Your task to perform on an android device: see tabs open on other devices in the chrome app Image 0: 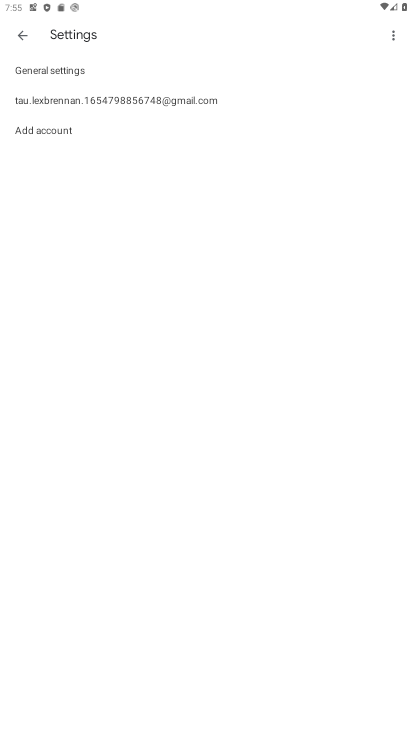
Step 0: press home button
Your task to perform on an android device: see tabs open on other devices in the chrome app Image 1: 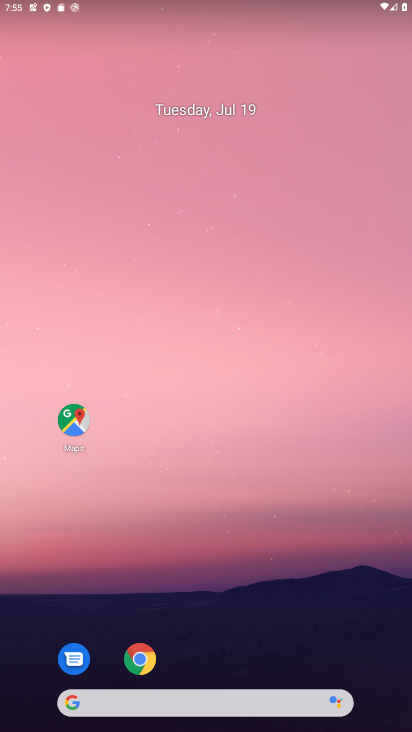
Step 1: click (132, 664)
Your task to perform on an android device: see tabs open on other devices in the chrome app Image 2: 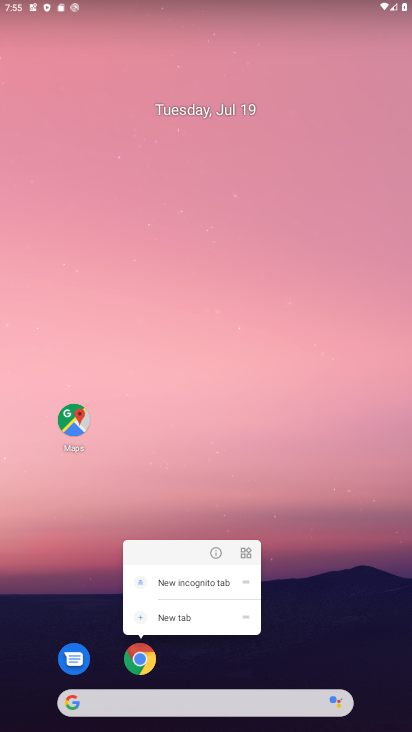
Step 2: click (136, 654)
Your task to perform on an android device: see tabs open on other devices in the chrome app Image 3: 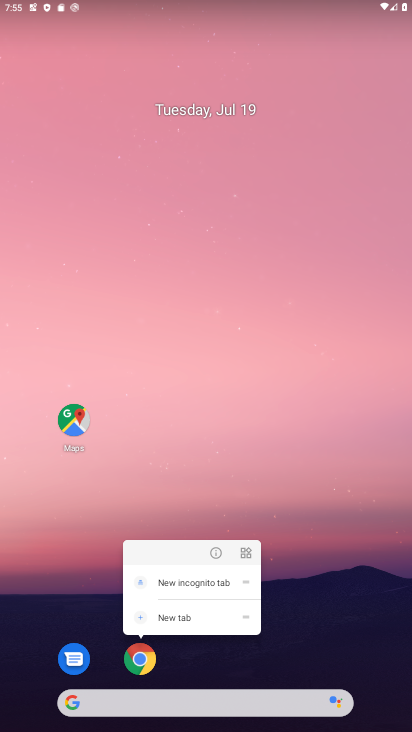
Step 3: click (148, 664)
Your task to perform on an android device: see tabs open on other devices in the chrome app Image 4: 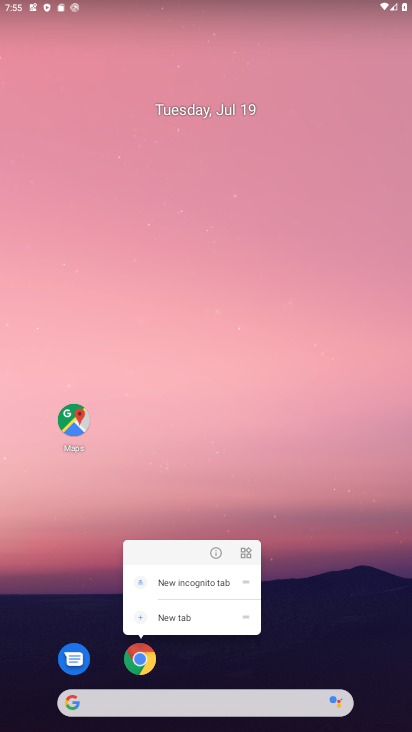
Step 4: click (139, 661)
Your task to perform on an android device: see tabs open on other devices in the chrome app Image 5: 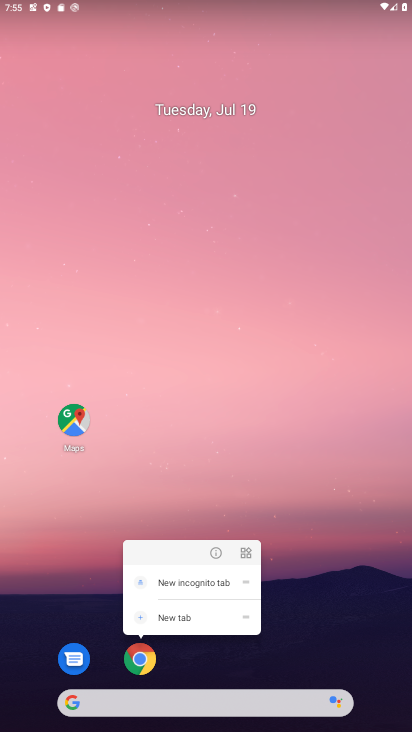
Step 5: click (136, 663)
Your task to perform on an android device: see tabs open on other devices in the chrome app Image 6: 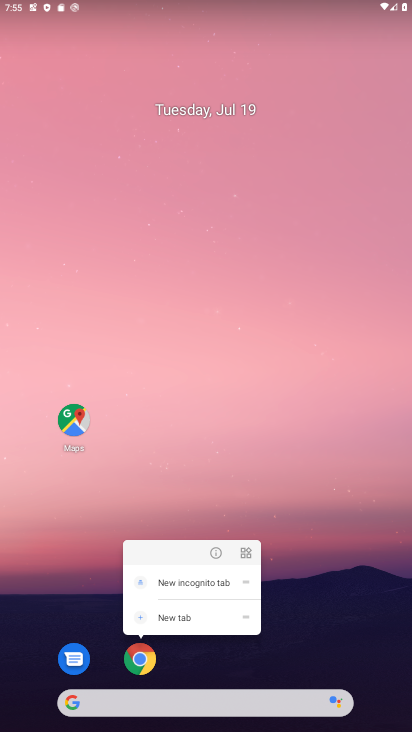
Step 6: click (150, 670)
Your task to perform on an android device: see tabs open on other devices in the chrome app Image 7: 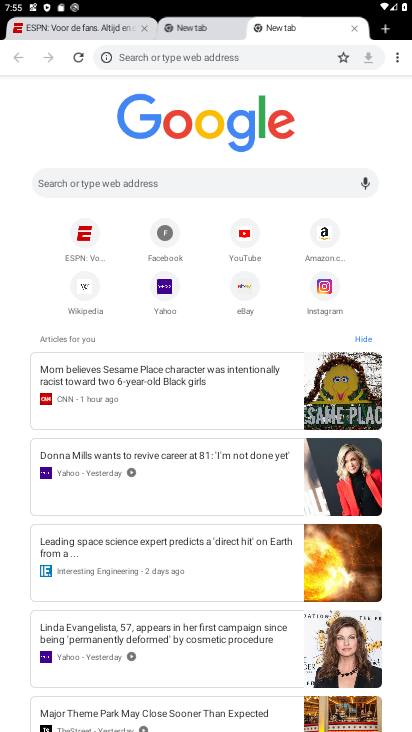
Step 7: click (43, 34)
Your task to perform on an android device: see tabs open on other devices in the chrome app Image 8: 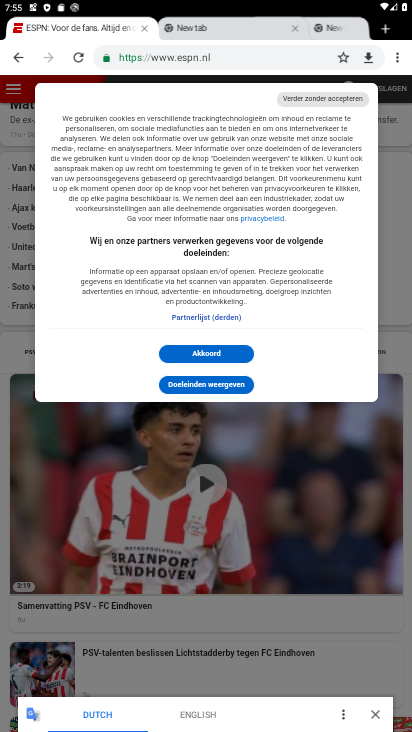
Step 8: click (203, 27)
Your task to perform on an android device: see tabs open on other devices in the chrome app Image 9: 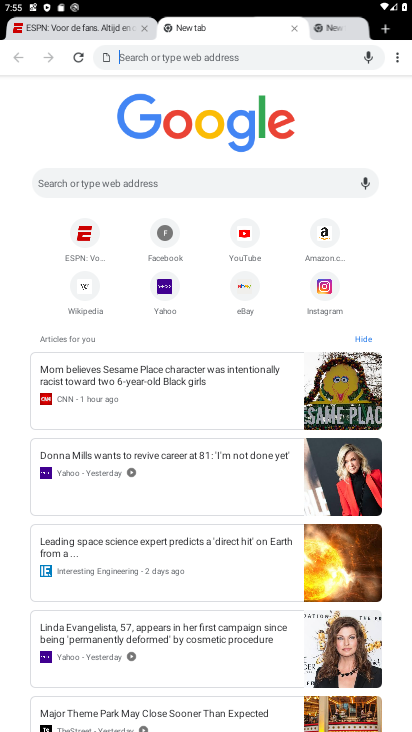
Step 9: click (326, 33)
Your task to perform on an android device: see tabs open on other devices in the chrome app Image 10: 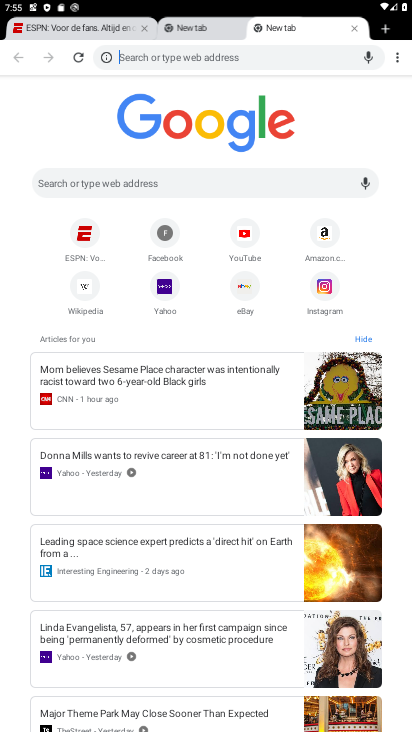
Step 10: task complete